Your task to perform on an android device: Add "logitech g pro" to the cart on ebay, then select checkout. Image 0: 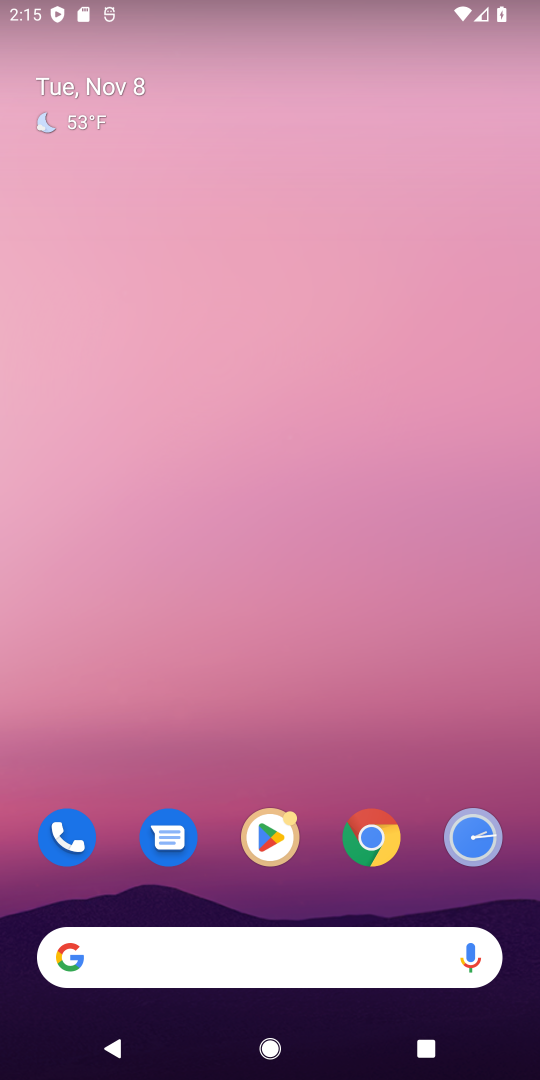
Step 0: click (349, 824)
Your task to perform on an android device: Add "logitech g pro" to the cart on ebay, then select checkout. Image 1: 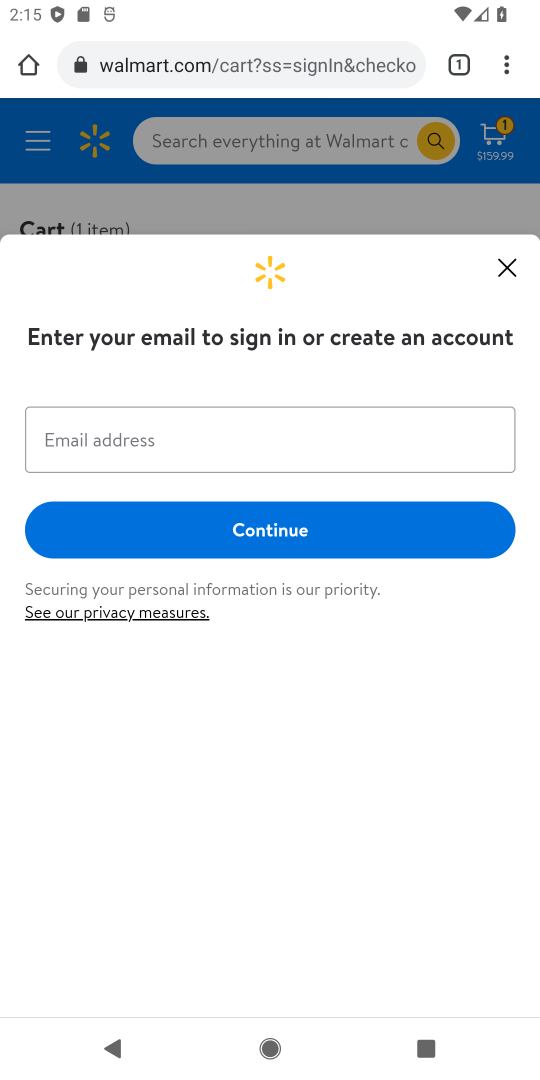
Step 1: click (164, 56)
Your task to perform on an android device: Add "logitech g pro" to the cart on ebay, then select checkout. Image 2: 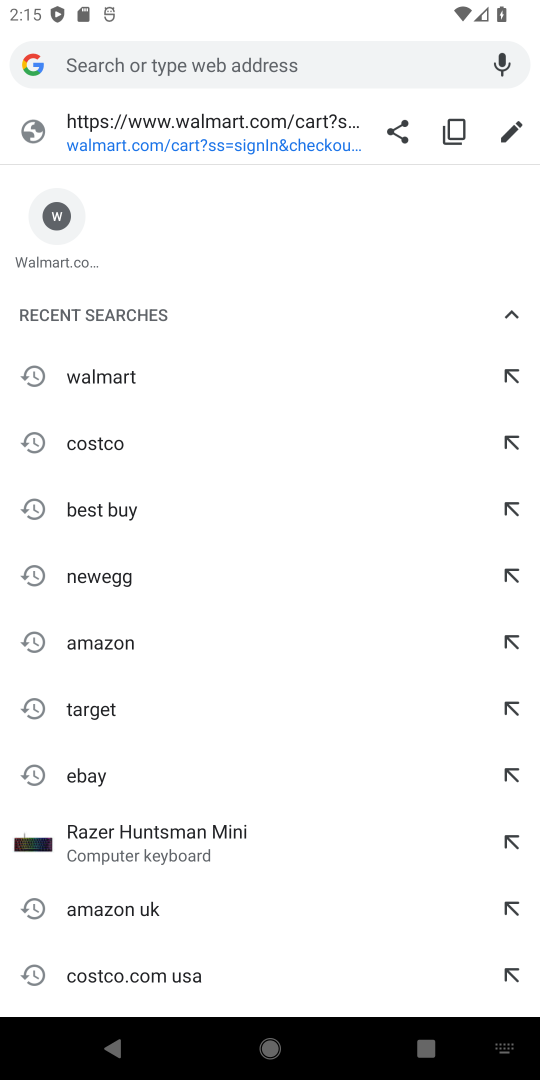
Step 2: type "ebay"
Your task to perform on an android device: Add "logitech g pro" to the cart on ebay, then select checkout. Image 3: 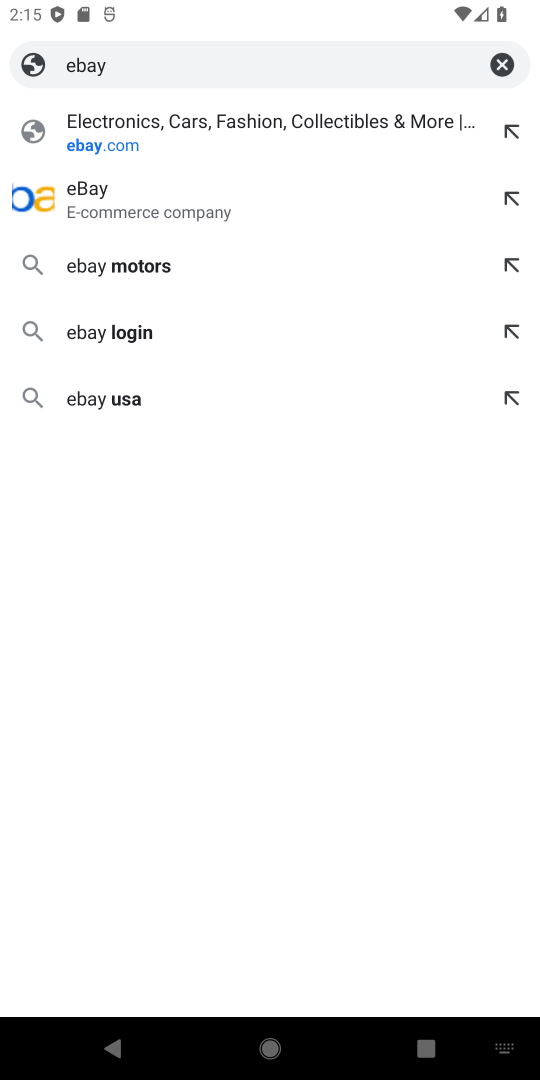
Step 3: click (81, 199)
Your task to perform on an android device: Add "logitech g pro" to the cart on ebay, then select checkout. Image 4: 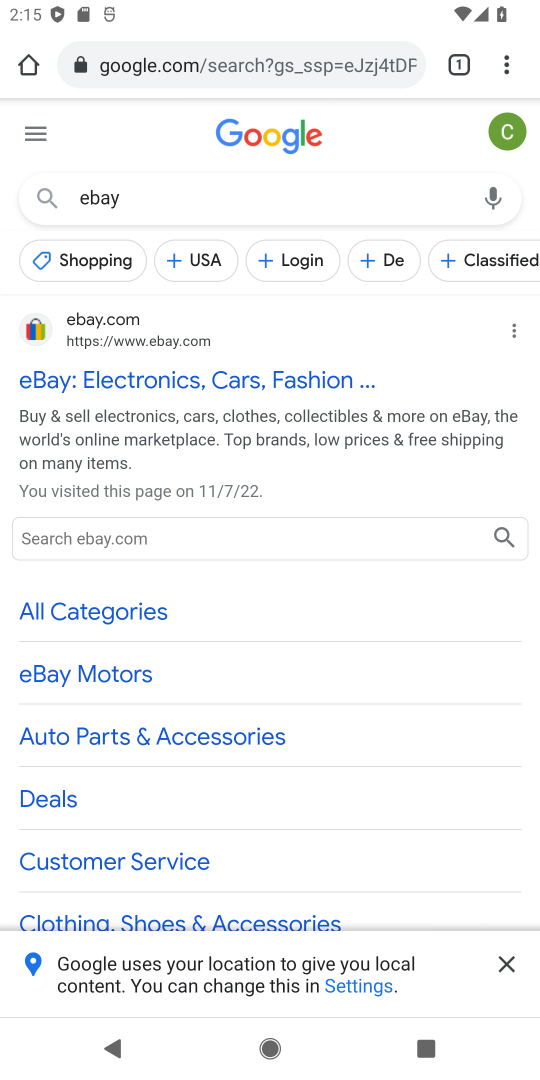
Step 4: click (123, 384)
Your task to perform on an android device: Add "logitech g pro" to the cart on ebay, then select checkout. Image 5: 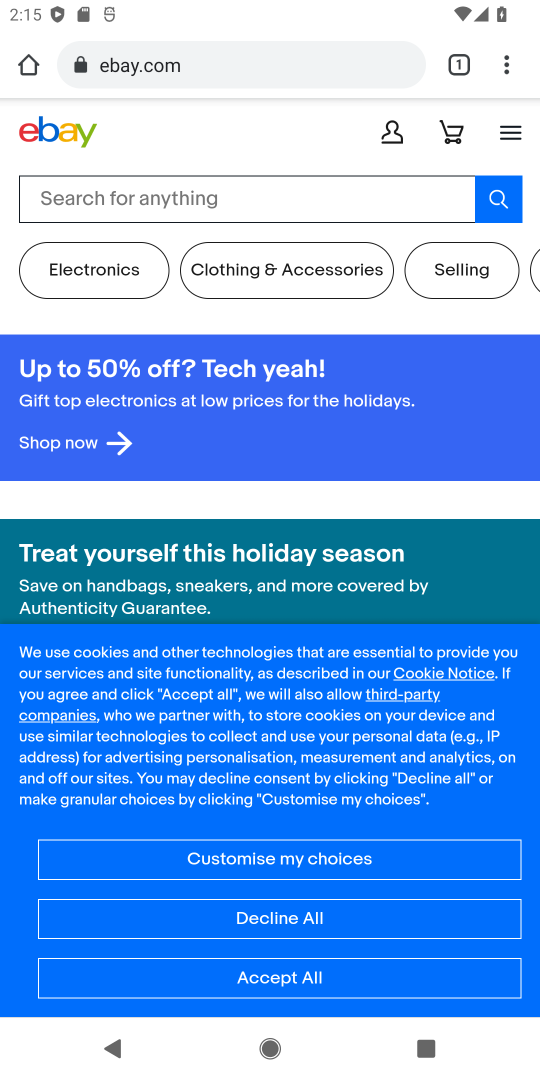
Step 5: click (172, 208)
Your task to perform on an android device: Add "logitech g pro" to the cart on ebay, then select checkout. Image 6: 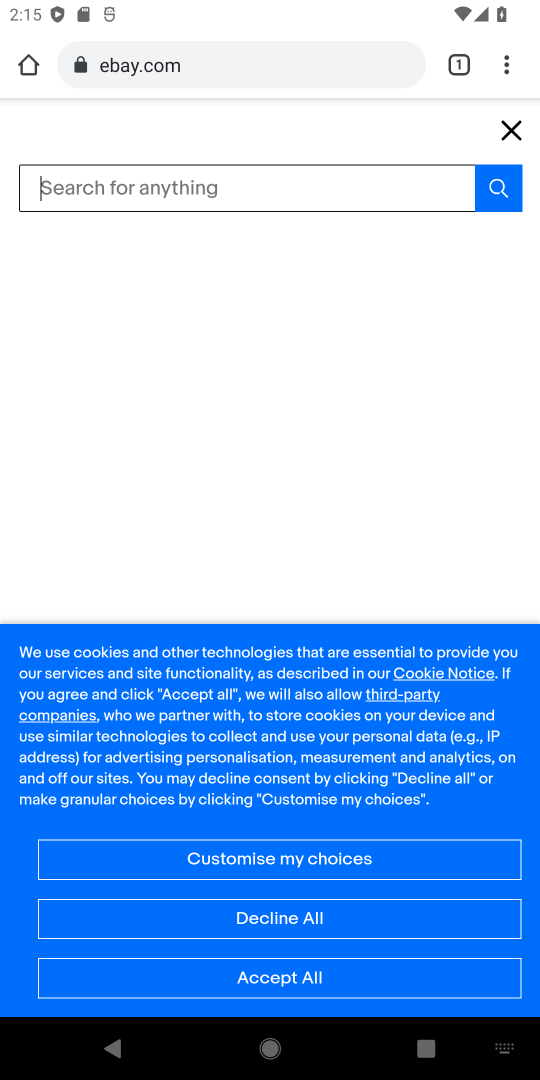
Step 6: type "logitech g pro"
Your task to perform on an android device: Add "logitech g pro" to the cart on ebay, then select checkout. Image 7: 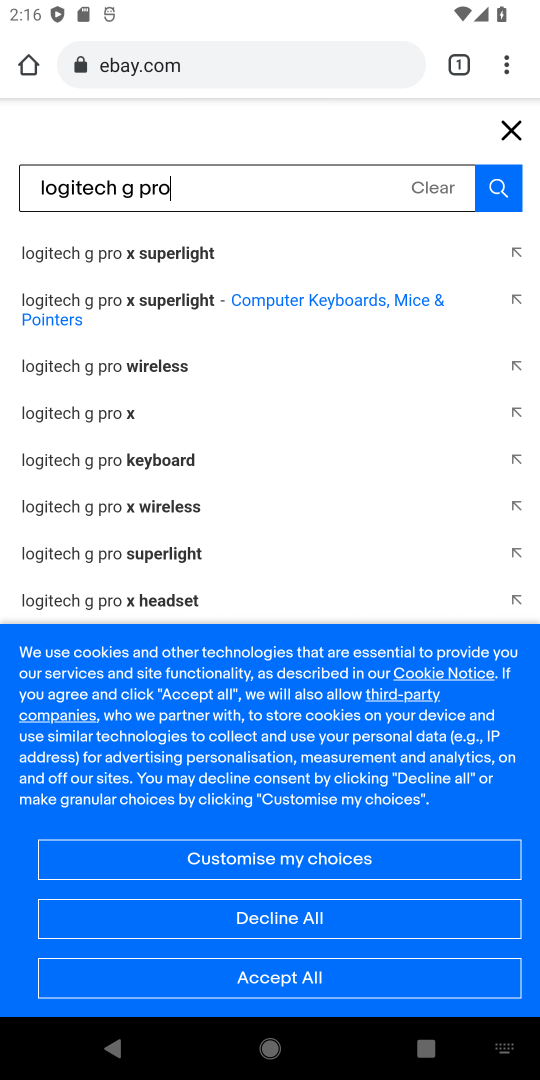
Step 7: click (113, 408)
Your task to perform on an android device: Add "logitech g pro" to the cart on ebay, then select checkout. Image 8: 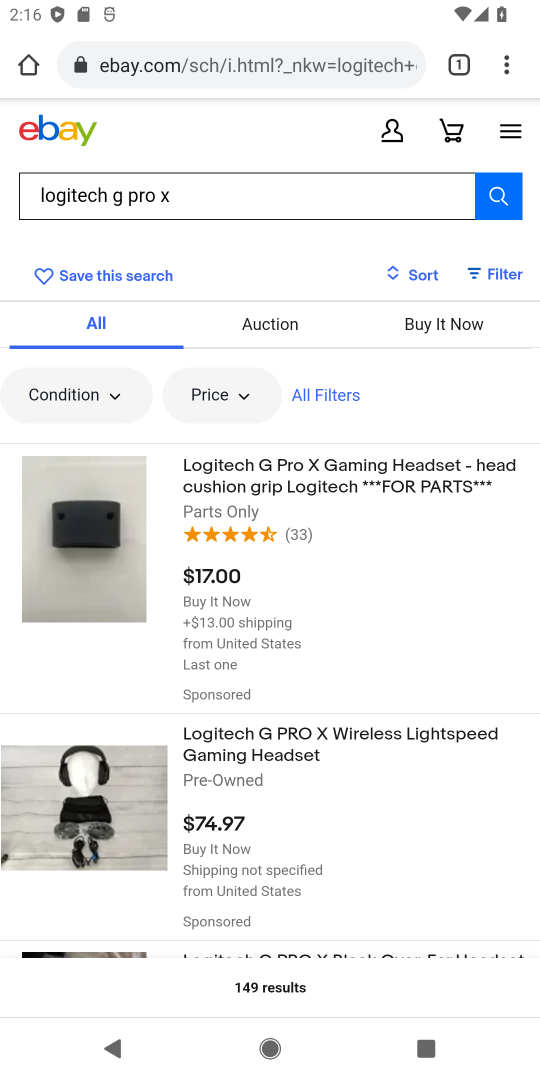
Step 8: drag from (338, 781) to (312, 295)
Your task to perform on an android device: Add "logitech g pro" to the cart on ebay, then select checkout. Image 9: 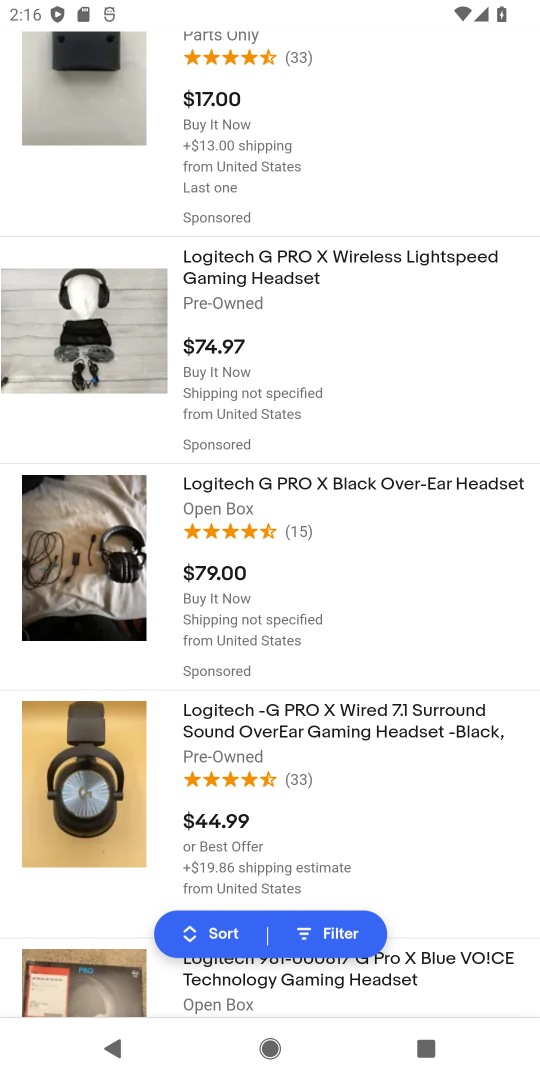
Step 9: click (291, 720)
Your task to perform on an android device: Add "logitech g pro" to the cart on ebay, then select checkout. Image 10: 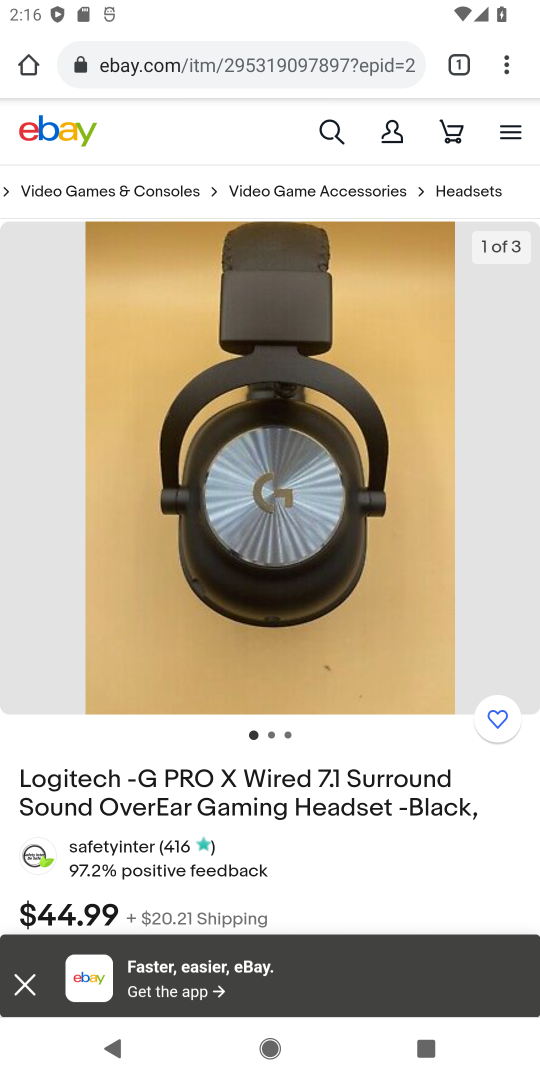
Step 10: drag from (309, 801) to (292, 263)
Your task to perform on an android device: Add "logitech g pro" to the cart on ebay, then select checkout. Image 11: 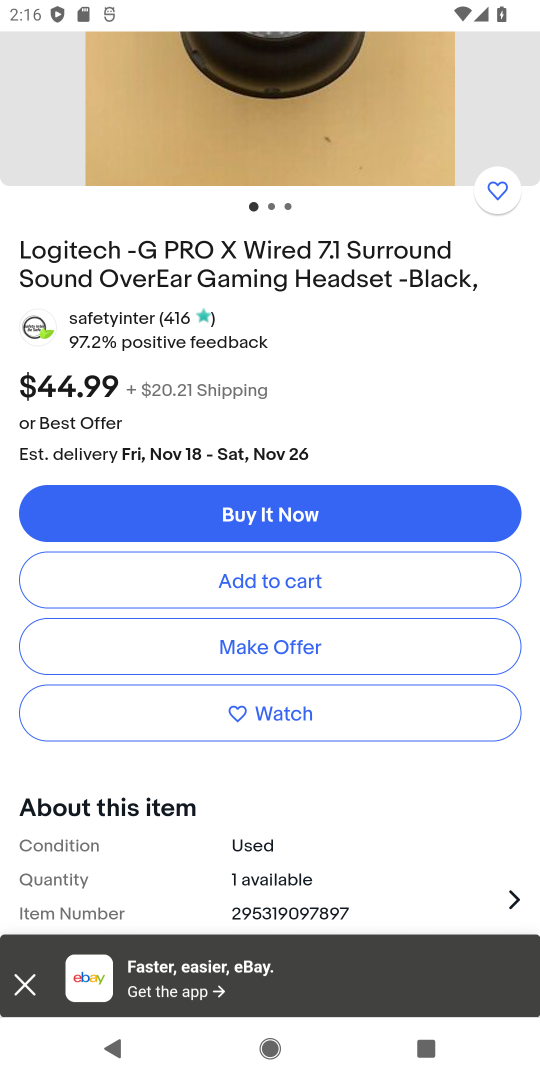
Step 11: click (218, 577)
Your task to perform on an android device: Add "logitech g pro" to the cart on ebay, then select checkout. Image 12: 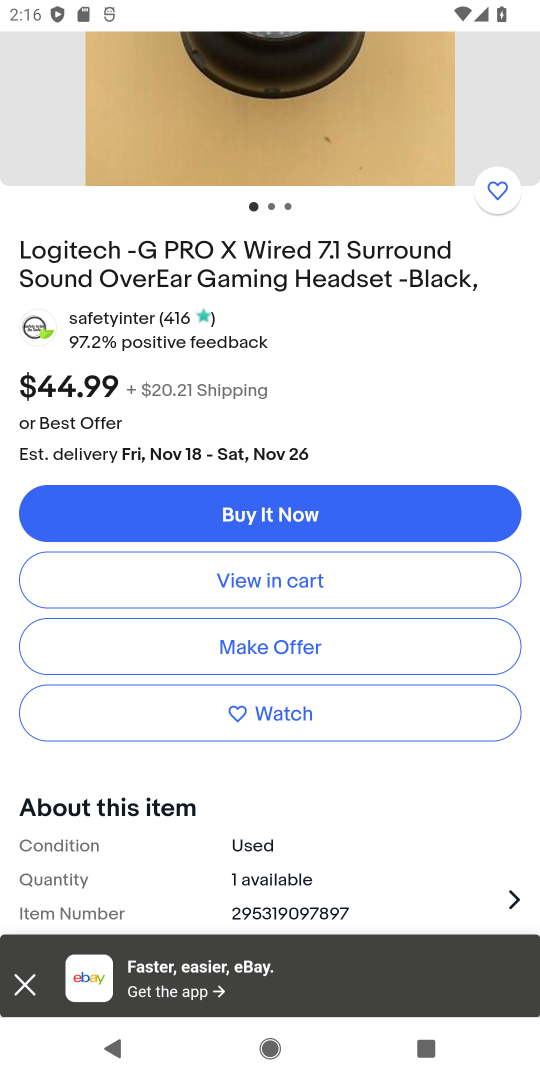
Step 12: click (270, 580)
Your task to perform on an android device: Add "logitech g pro" to the cart on ebay, then select checkout. Image 13: 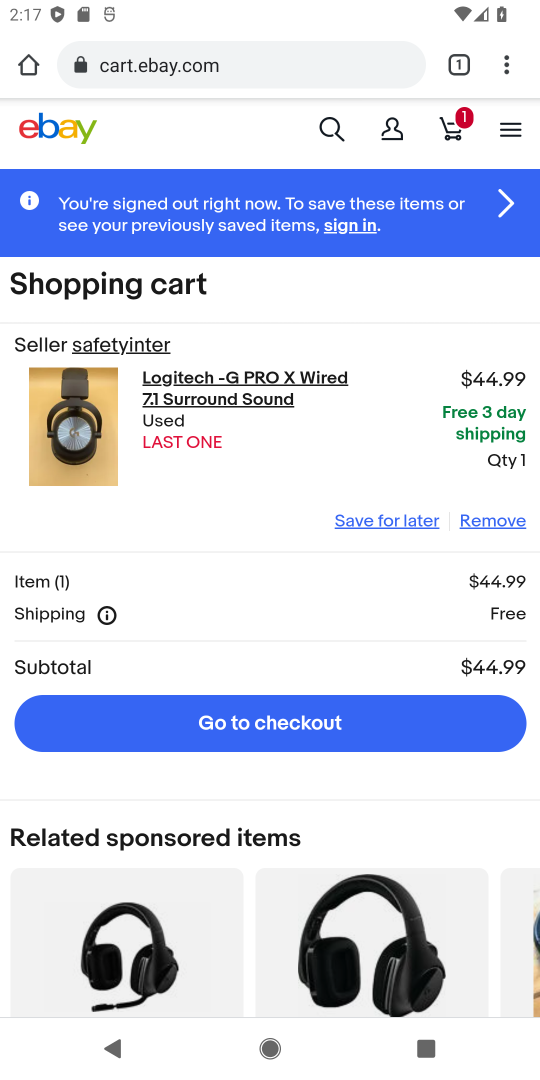
Step 13: click (315, 730)
Your task to perform on an android device: Add "logitech g pro" to the cart on ebay, then select checkout. Image 14: 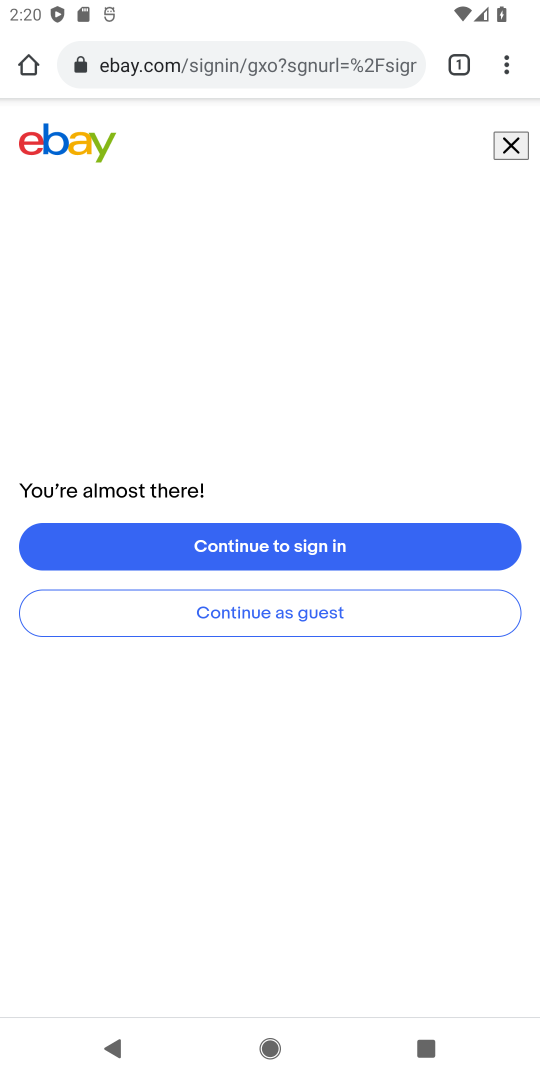
Step 14: click (191, 541)
Your task to perform on an android device: Add "logitech g pro" to the cart on ebay, then select checkout. Image 15: 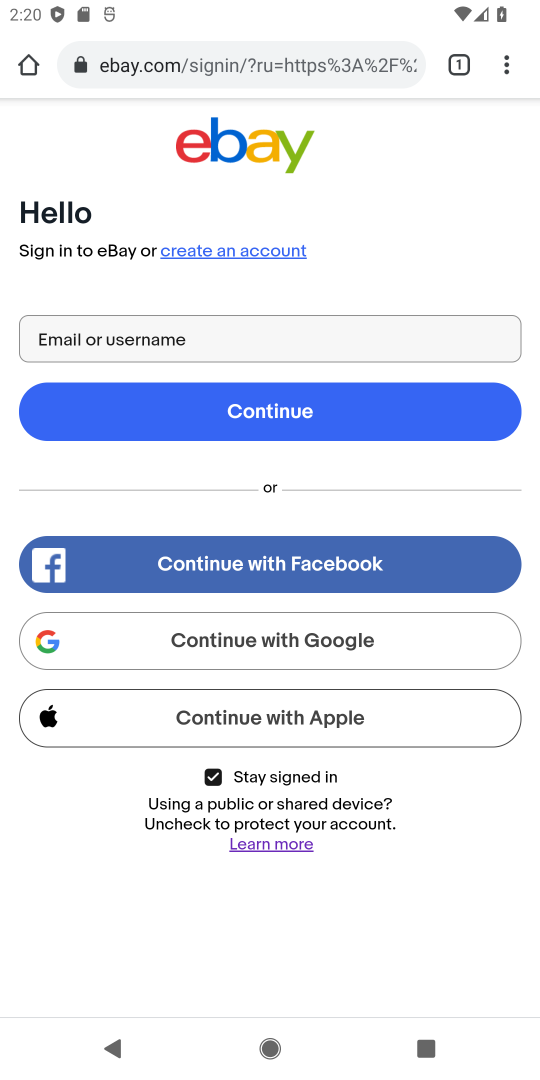
Step 15: task complete